Your task to perform on an android device: Go to privacy settings Image 0: 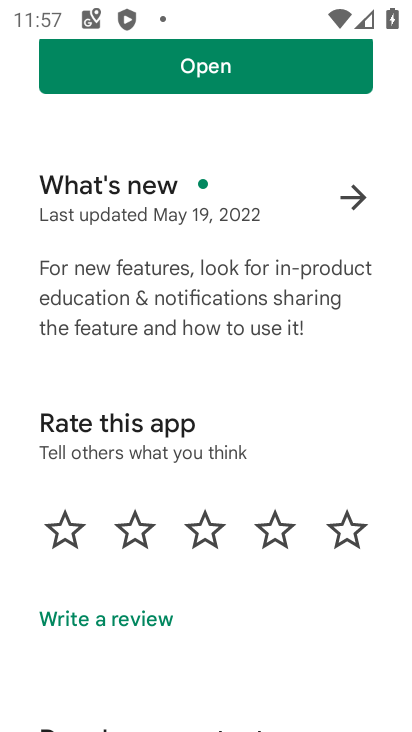
Step 0: drag from (207, 626) to (325, 215)
Your task to perform on an android device: Go to privacy settings Image 1: 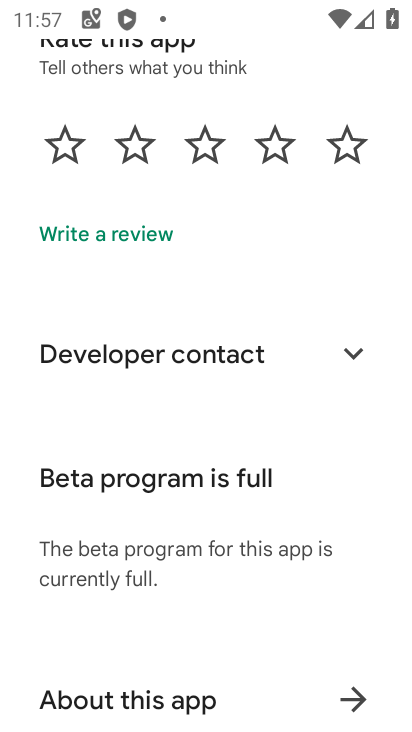
Step 1: press home button
Your task to perform on an android device: Go to privacy settings Image 2: 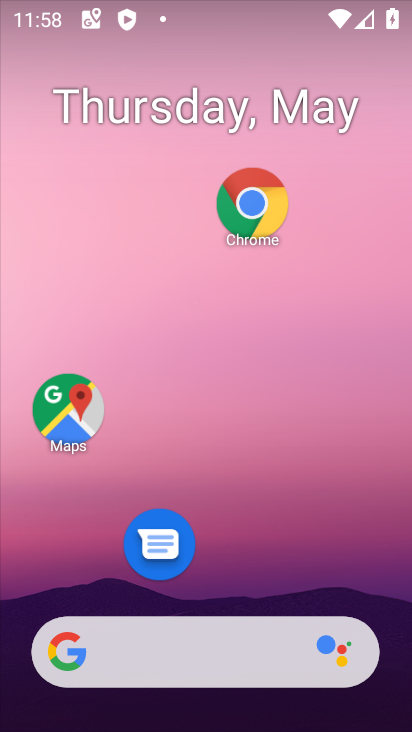
Step 2: drag from (236, 558) to (210, 257)
Your task to perform on an android device: Go to privacy settings Image 3: 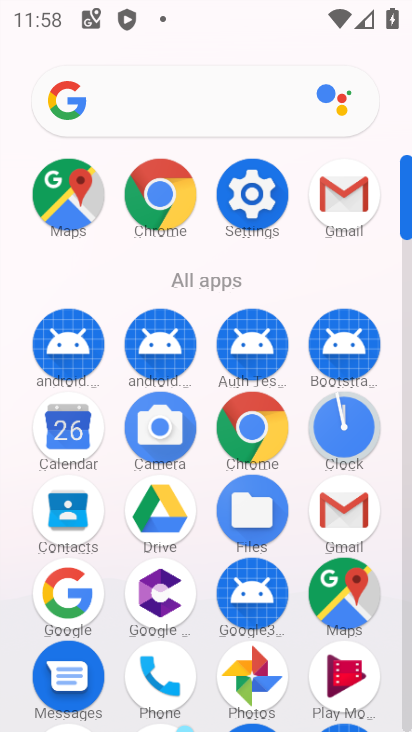
Step 3: click (244, 195)
Your task to perform on an android device: Go to privacy settings Image 4: 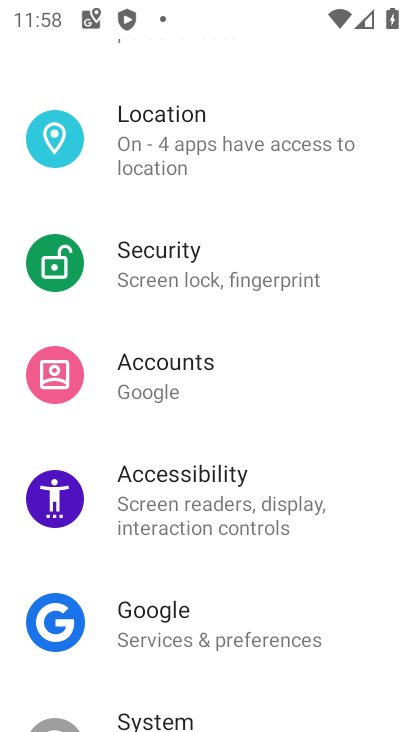
Step 4: drag from (229, 622) to (315, 20)
Your task to perform on an android device: Go to privacy settings Image 5: 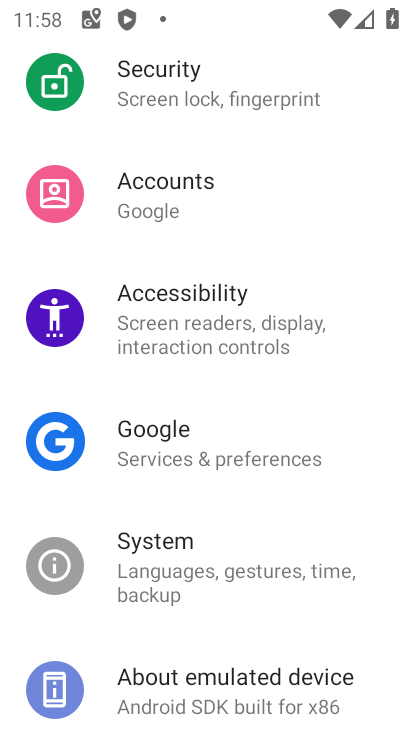
Step 5: drag from (236, 174) to (301, 640)
Your task to perform on an android device: Go to privacy settings Image 6: 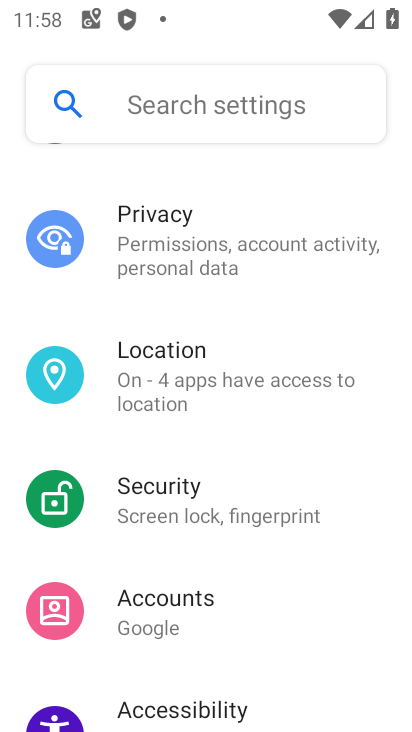
Step 6: click (165, 250)
Your task to perform on an android device: Go to privacy settings Image 7: 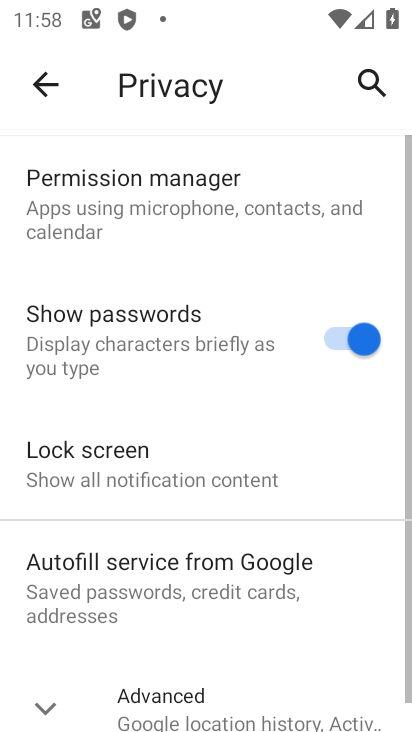
Step 7: task complete